Your task to perform on an android device: toggle sleep mode Image 0: 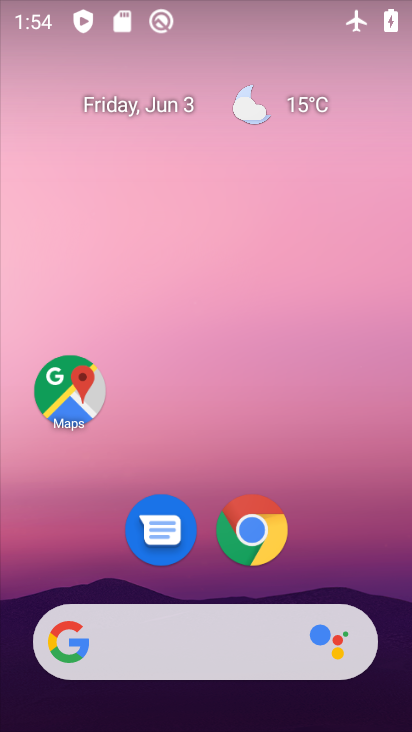
Step 0: drag from (311, 577) to (310, 381)
Your task to perform on an android device: toggle sleep mode Image 1: 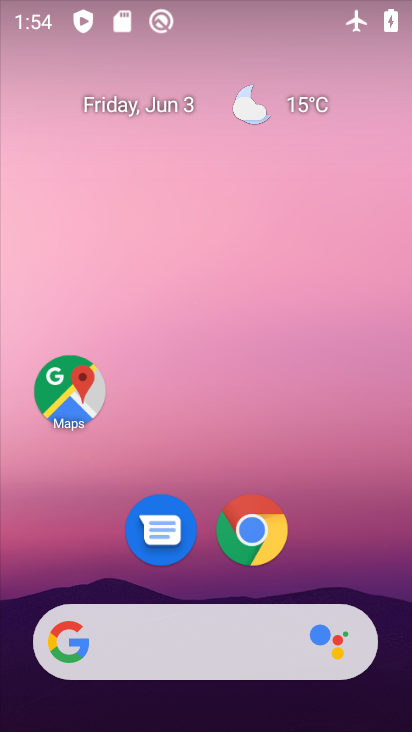
Step 1: task complete